Your task to perform on an android device: turn off location history Image 0: 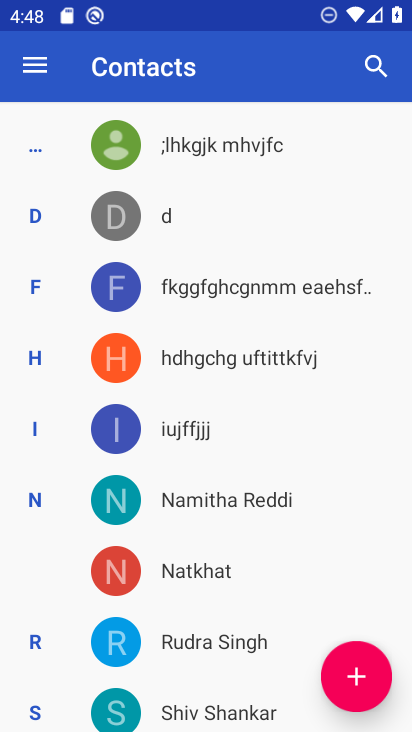
Step 0: press home button
Your task to perform on an android device: turn off location history Image 1: 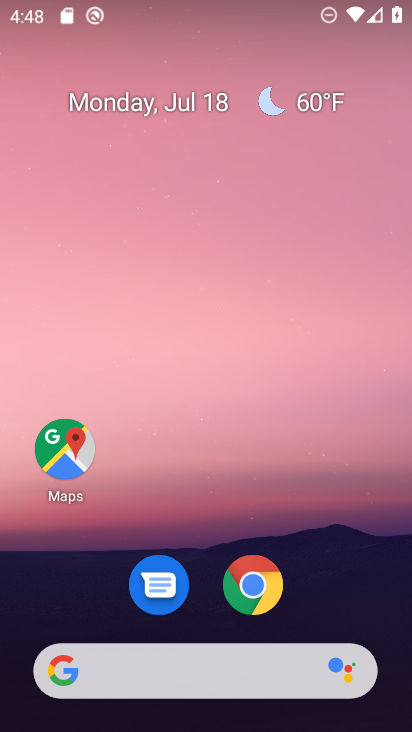
Step 1: drag from (342, 564) to (351, 1)
Your task to perform on an android device: turn off location history Image 2: 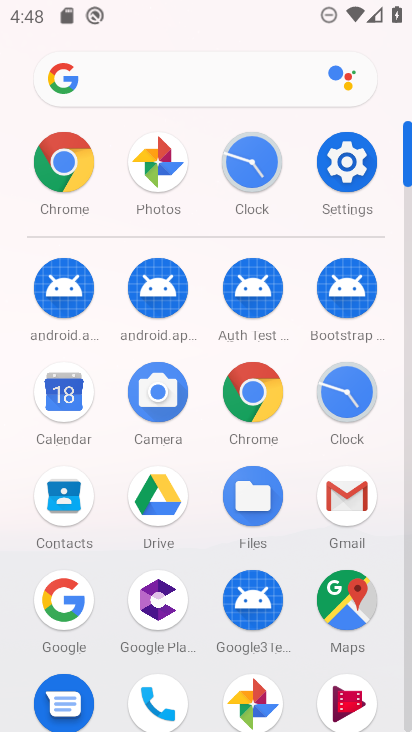
Step 2: click (353, 168)
Your task to perform on an android device: turn off location history Image 3: 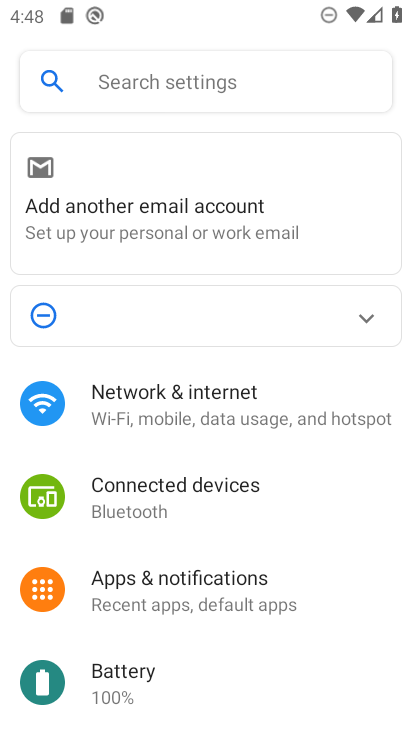
Step 3: drag from (253, 624) to (320, 100)
Your task to perform on an android device: turn off location history Image 4: 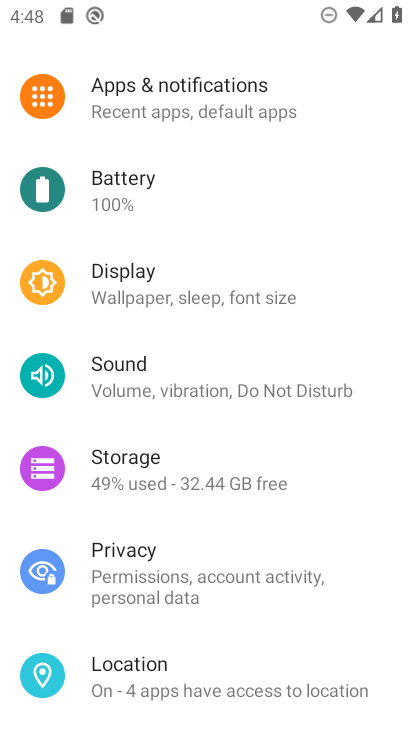
Step 4: click (224, 674)
Your task to perform on an android device: turn off location history Image 5: 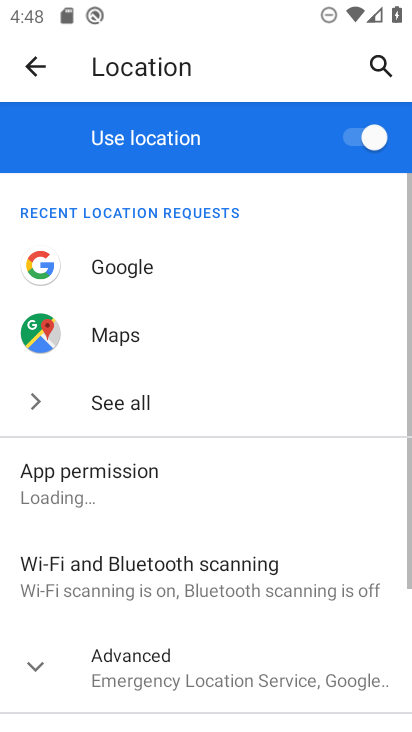
Step 5: drag from (336, 537) to (359, 61)
Your task to perform on an android device: turn off location history Image 6: 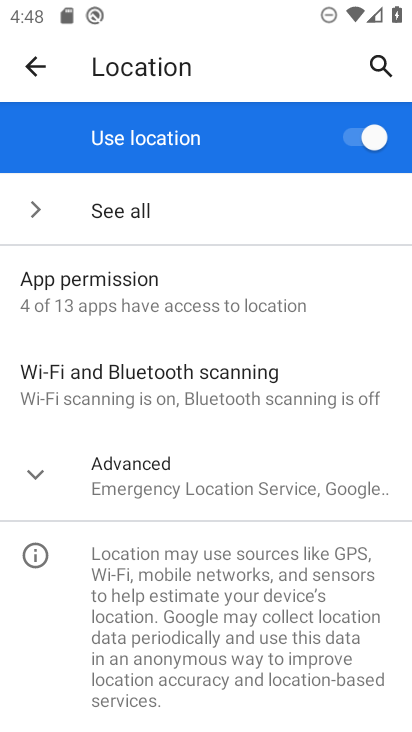
Step 6: click (45, 474)
Your task to perform on an android device: turn off location history Image 7: 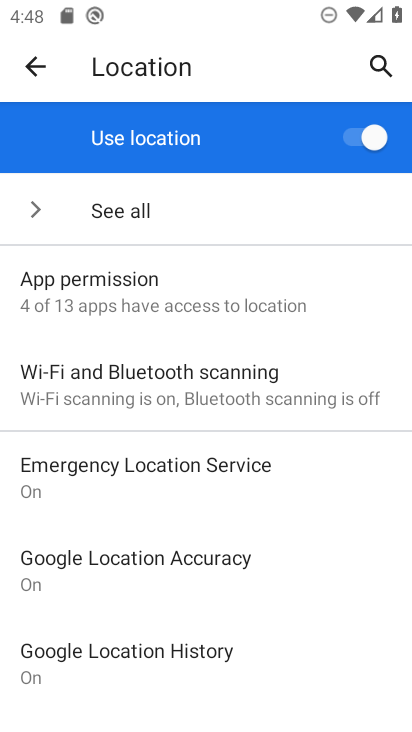
Step 7: click (151, 662)
Your task to perform on an android device: turn off location history Image 8: 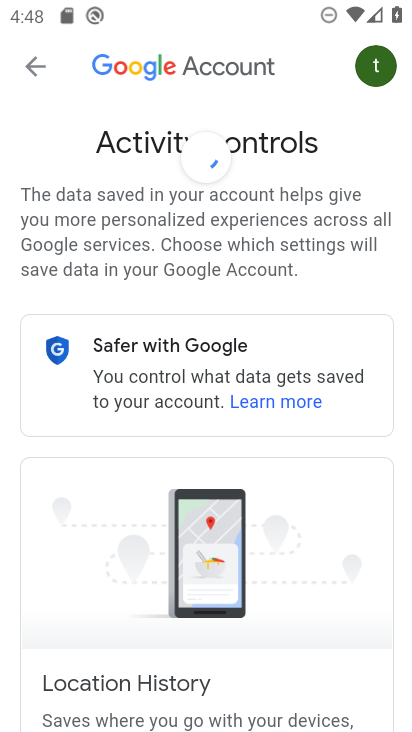
Step 8: drag from (302, 644) to (285, 198)
Your task to perform on an android device: turn off location history Image 9: 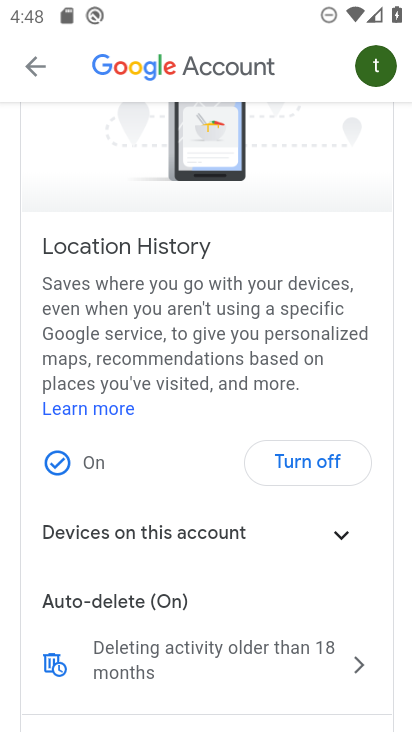
Step 9: click (327, 459)
Your task to perform on an android device: turn off location history Image 10: 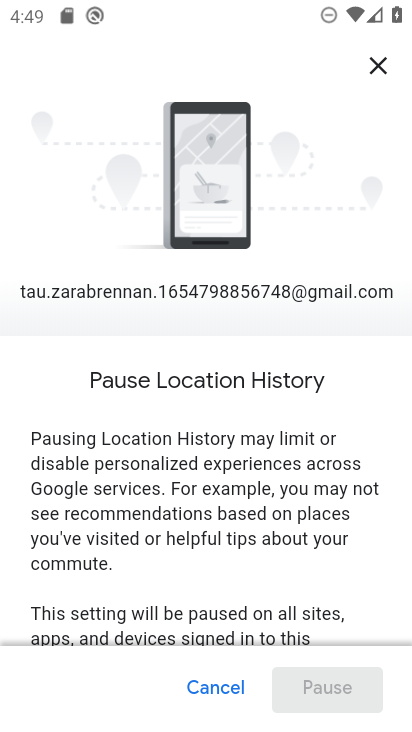
Step 10: drag from (302, 555) to (241, 147)
Your task to perform on an android device: turn off location history Image 11: 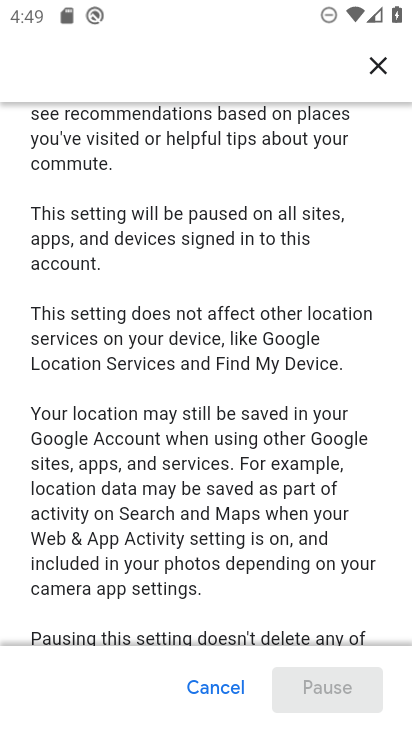
Step 11: drag from (286, 471) to (279, 145)
Your task to perform on an android device: turn off location history Image 12: 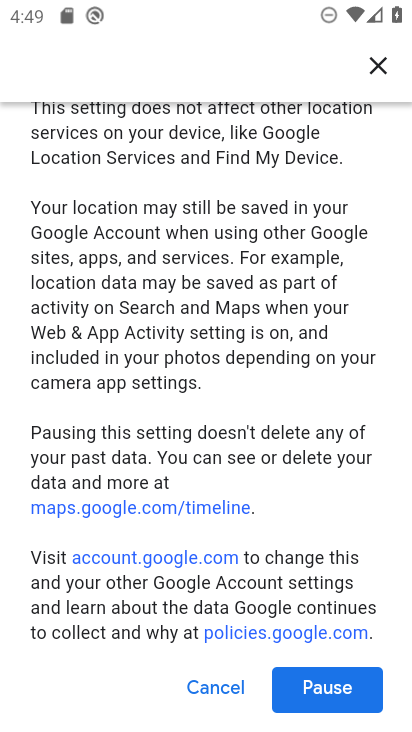
Step 12: click (350, 681)
Your task to perform on an android device: turn off location history Image 13: 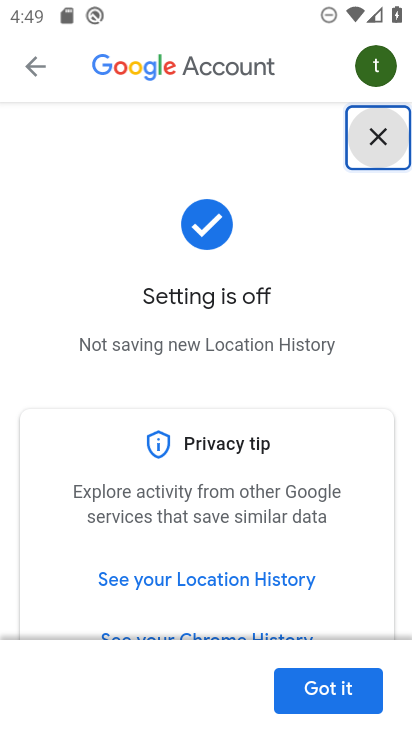
Step 13: click (350, 679)
Your task to perform on an android device: turn off location history Image 14: 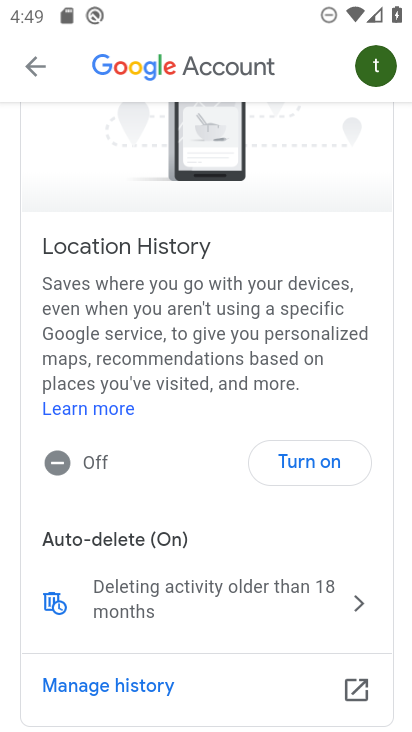
Step 14: task complete